Your task to perform on an android device: Is it going to rain tomorrow? Image 0: 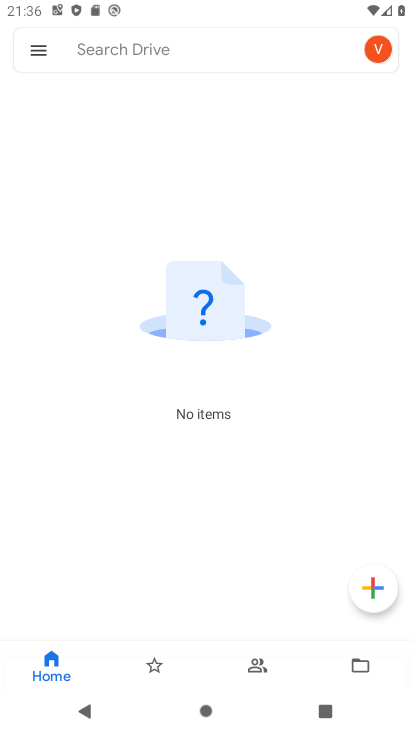
Step 0: press home button
Your task to perform on an android device: Is it going to rain tomorrow? Image 1: 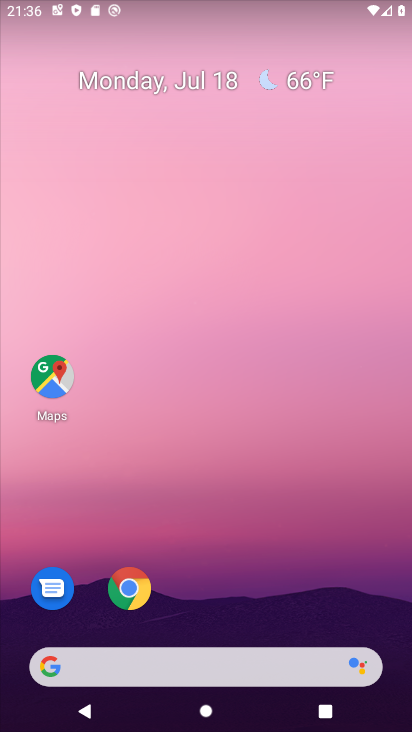
Step 1: click (144, 670)
Your task to perform on an android device: Is it going to rain tomorrow? Image 2: 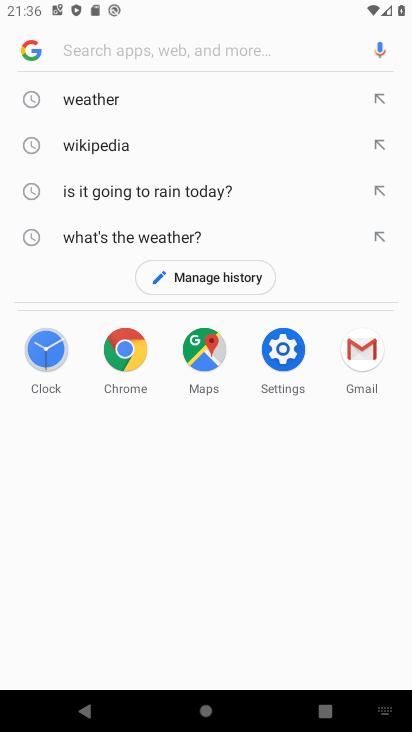
Step 2: click (122, 102)
Your task to perform on an android device: Is it going to rain tomorrow? Image 3: 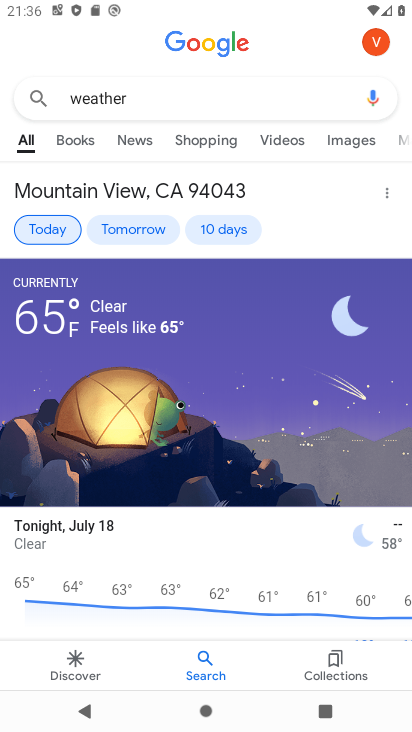
Step 3: click (139, 224)
Your task to perform on an android device: Is it going to rain tomorrow? Image 4: 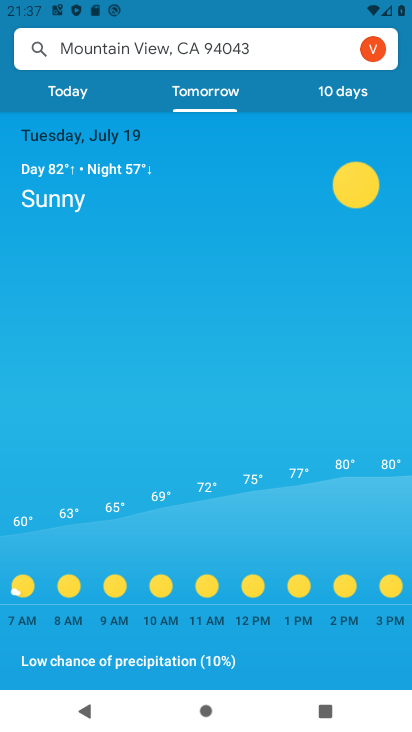
Step 4: task complete